Your task to perform on an android device: Open settings Image 0: 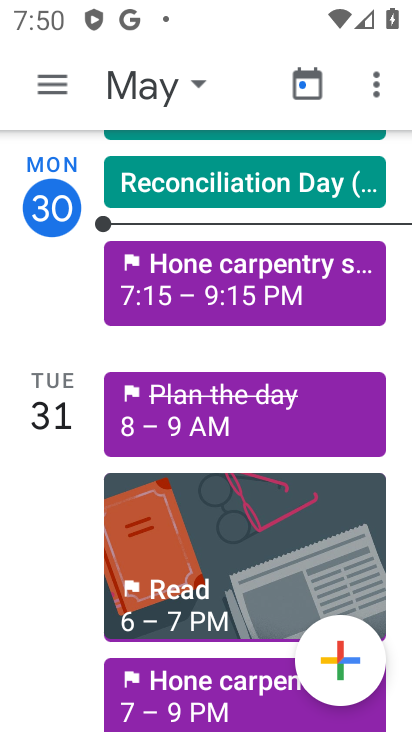
Step 0: press home button
Your task to perform on an android device: Open settings Image 1: 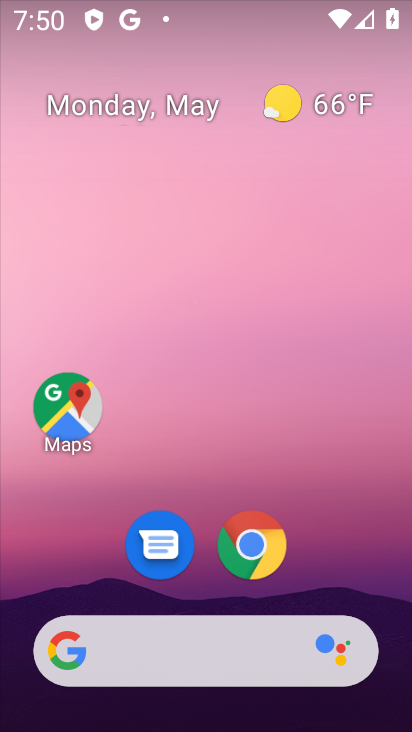
Step 1: drag from (225, 637) to (123, 29)
Your task to perform on an android device: Open settings Image 2: 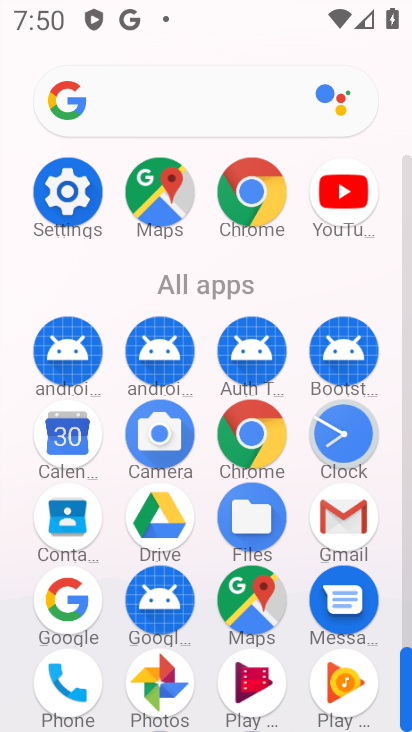
Step 2: click (68, 195)
Your task to perform on an android device: Open settings Image 3: 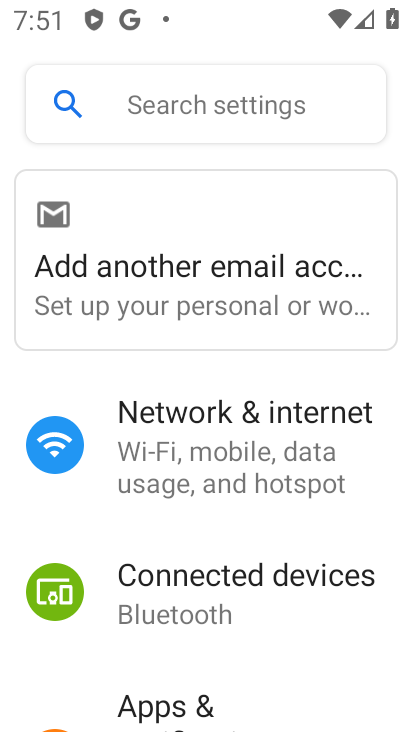
Step 3: task complete